Your task to perform on an android device: See recent photos Image 0: 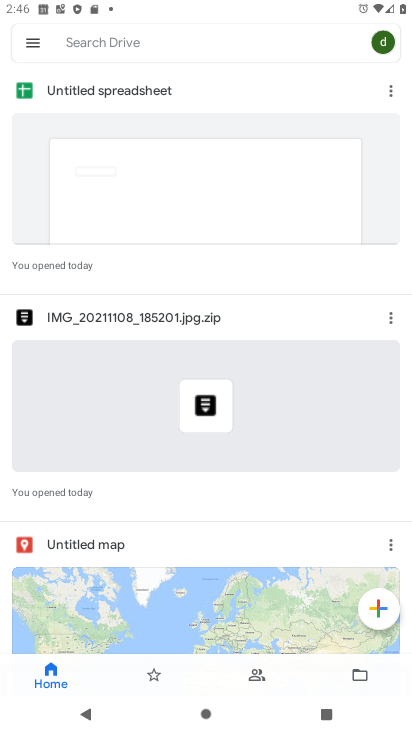
Step 0: press home button
Your task to perform on an android device: See recent photos Image 1: 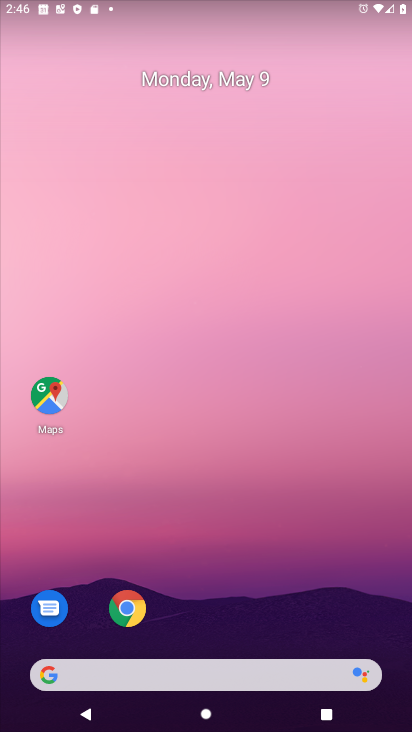
Step 1: drag from (201, 639) to (222, 214)
Your task to perform on an android device: See recent photos Image 2: 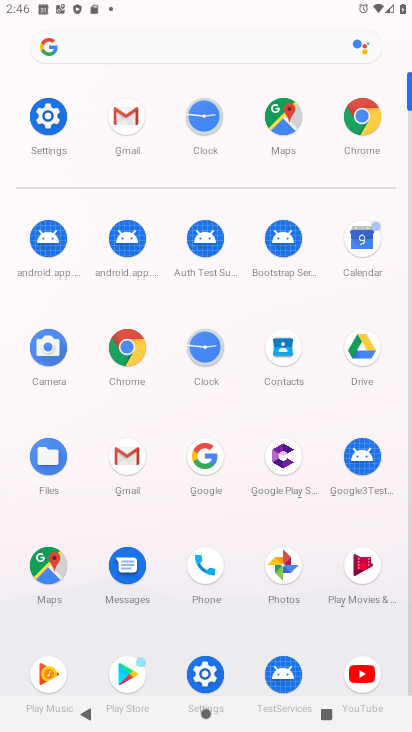
Step 2: click (291, 574)
Your task to perform on an android device: See recent photos Image 3: 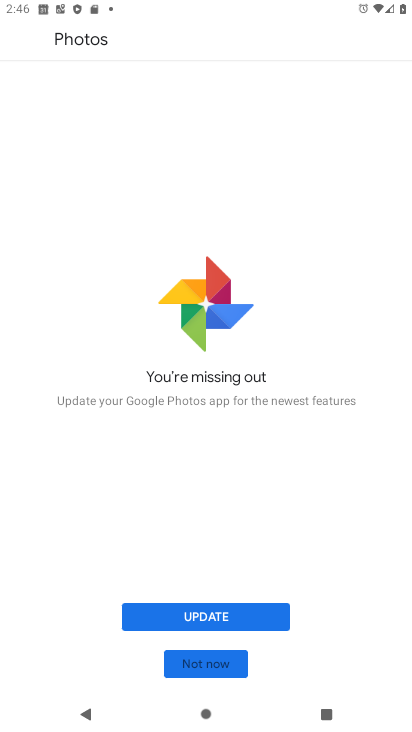
Step 3: click (217, 653)
Your task to perform on an android device: See recent photos Image 4: 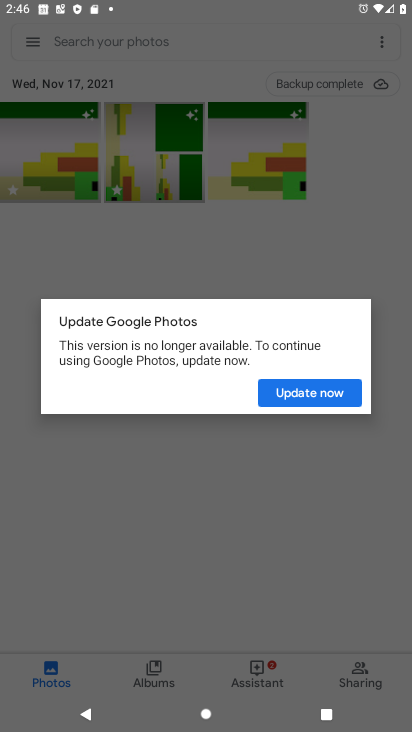
Step 4: task complete